Your task to perform on an android device: install app "Chime – Mobile Banking" Image 0: 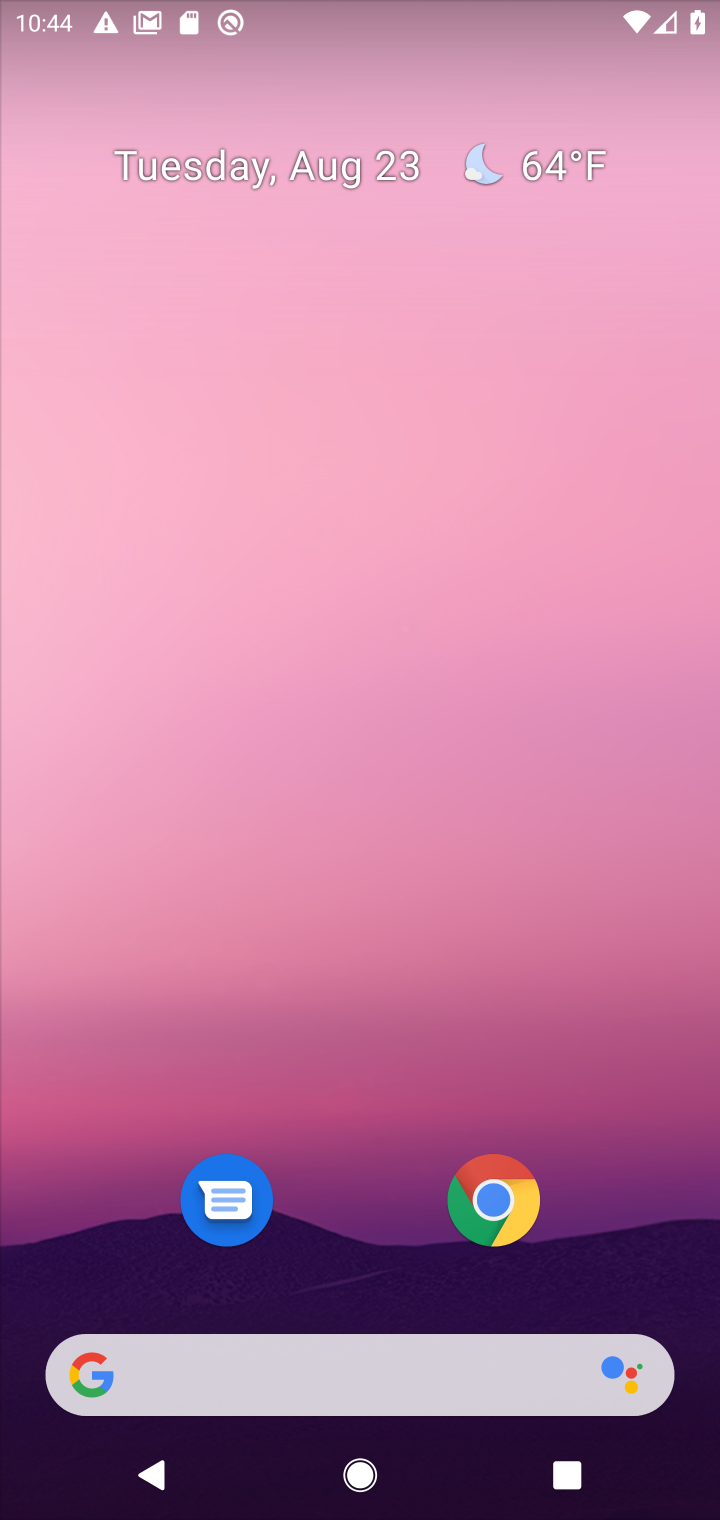
Step 0: drag from (343, 1255) to (133, 19)
Your task to perform on an android device: install app "Chime – Mobile Banking" Image 1: 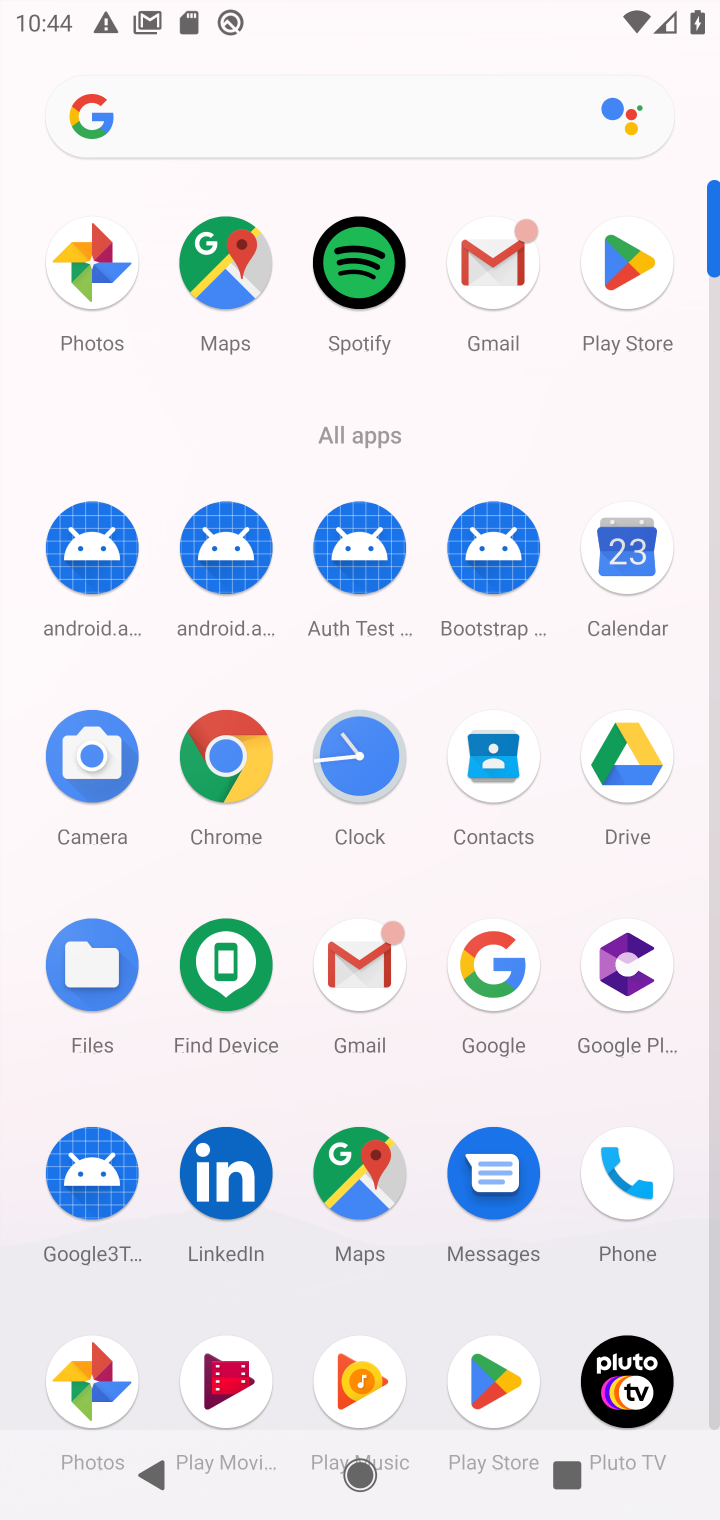
Step 1: click (632, 249)
Your task to perform on an android device: install app "Chime – Mobile Banking" Image 2: 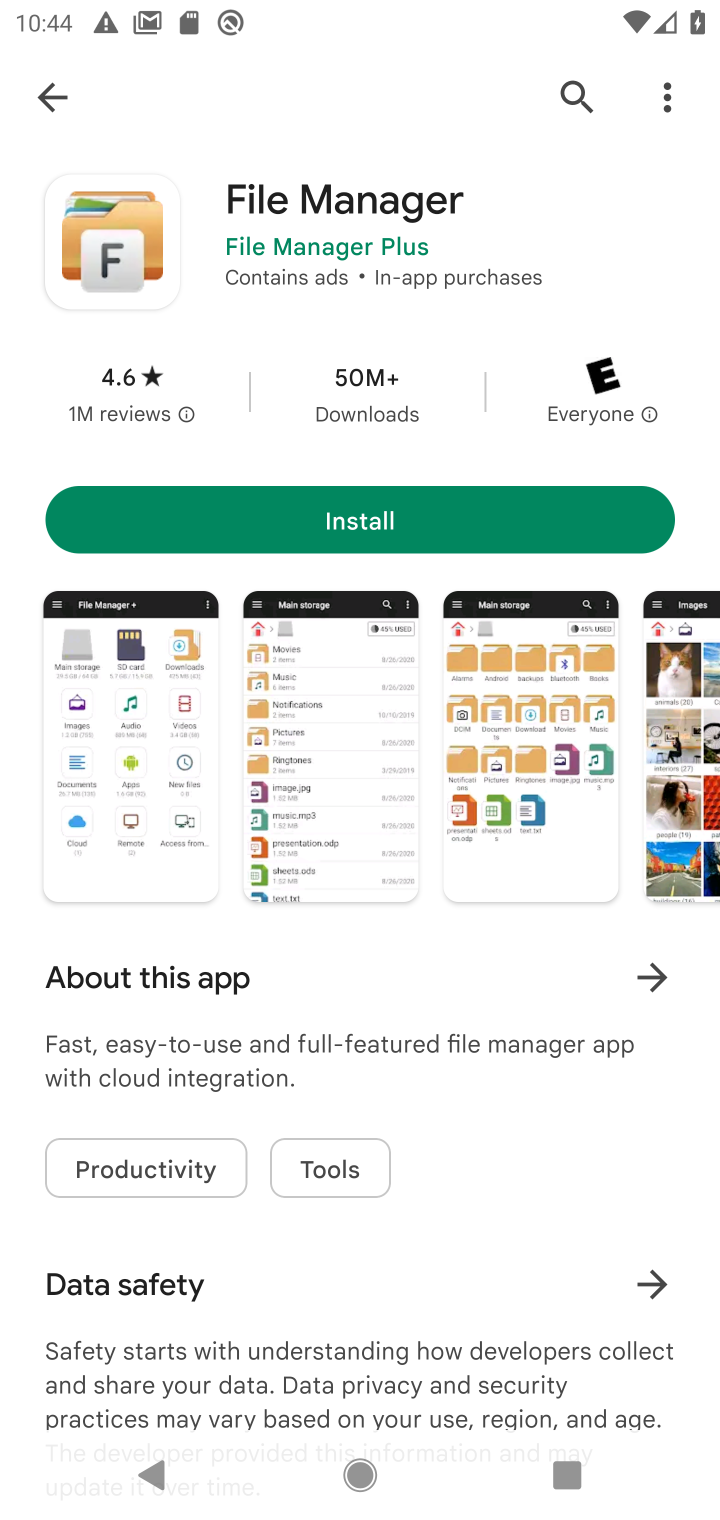
Step 2: click (114, 81)
Your task to perform on an android device: install app "Chime – Mobile Banking" Image 3: 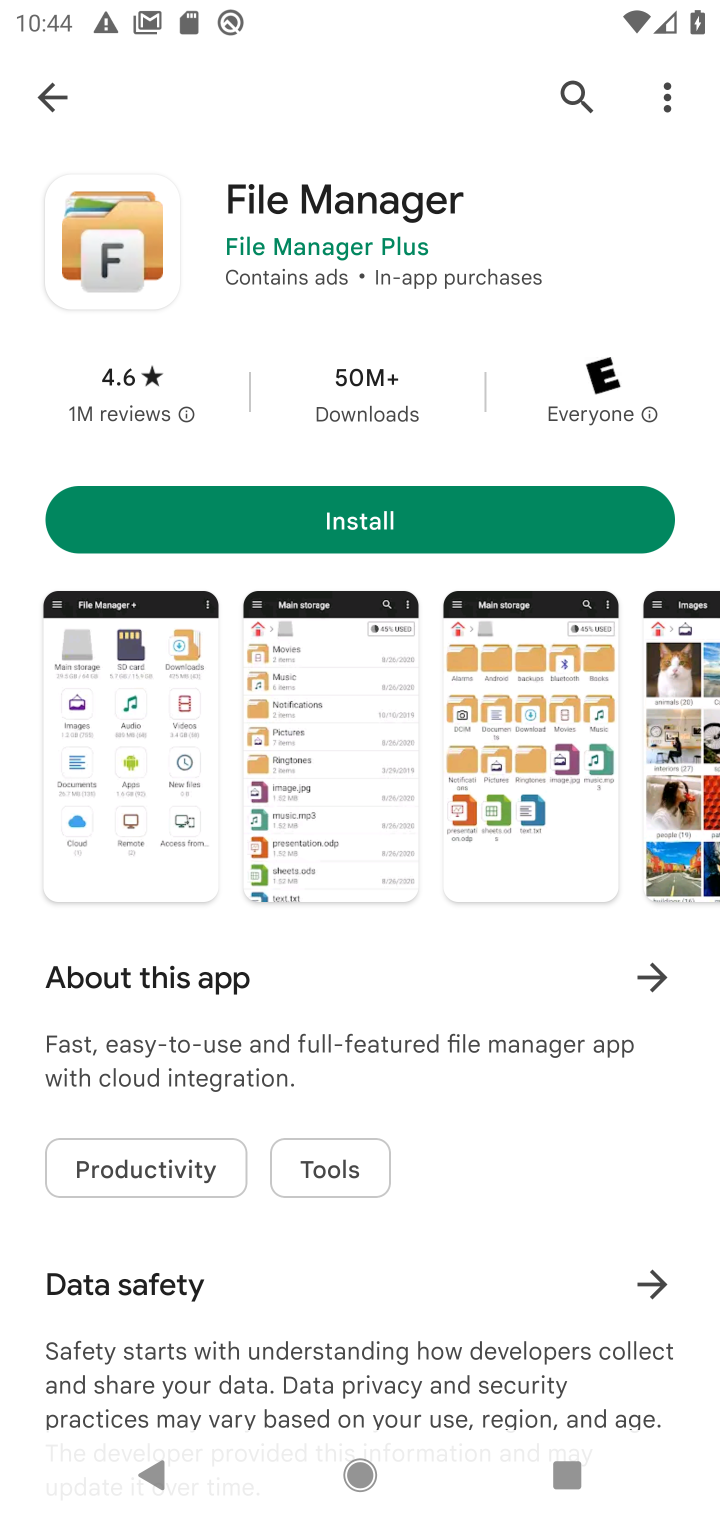
Step 3: click (36, 92)
Your task to perform on an android device: install app "Chime – Mobile Banking" Image 4: 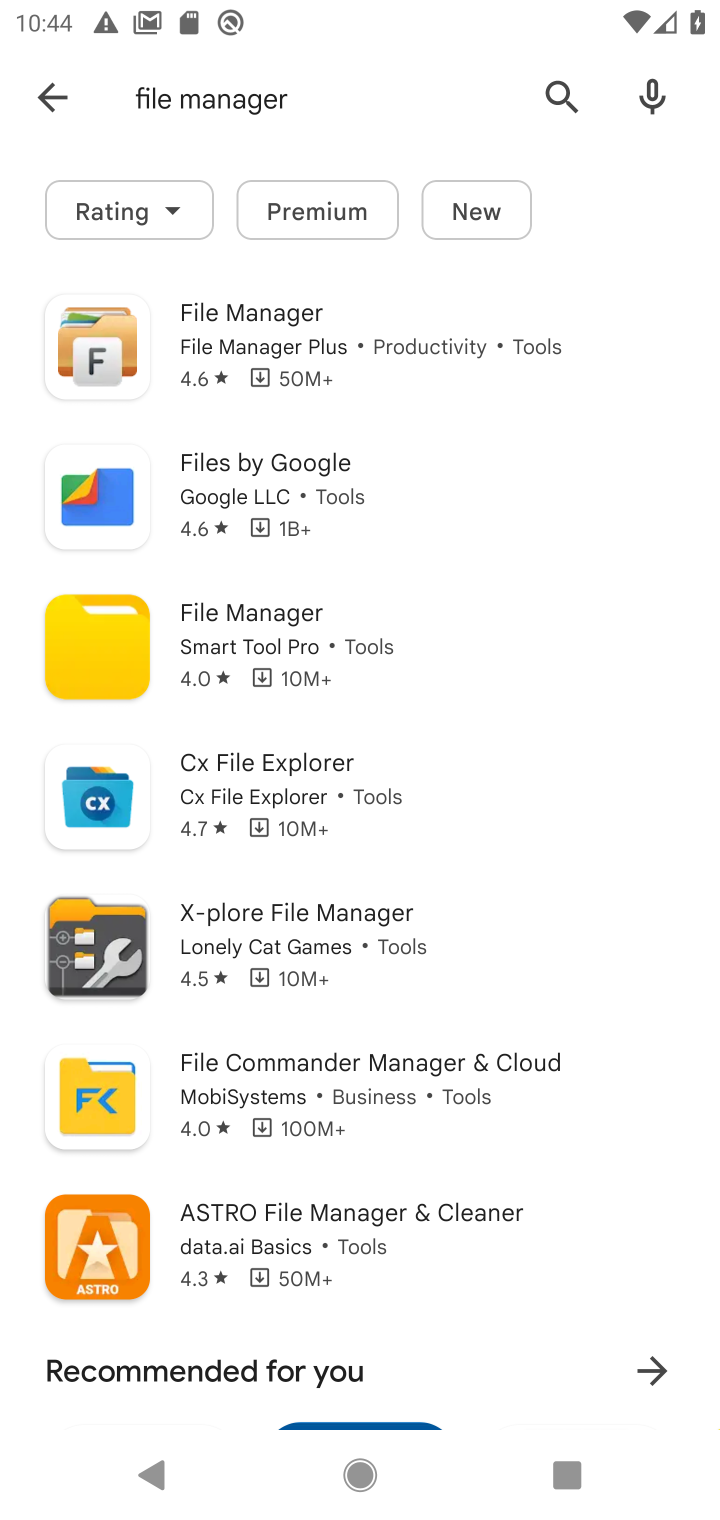
Step 4: click (36, 92)
Your task to perform on an android device: install app "Chime – Mobile Banking" Image 5: 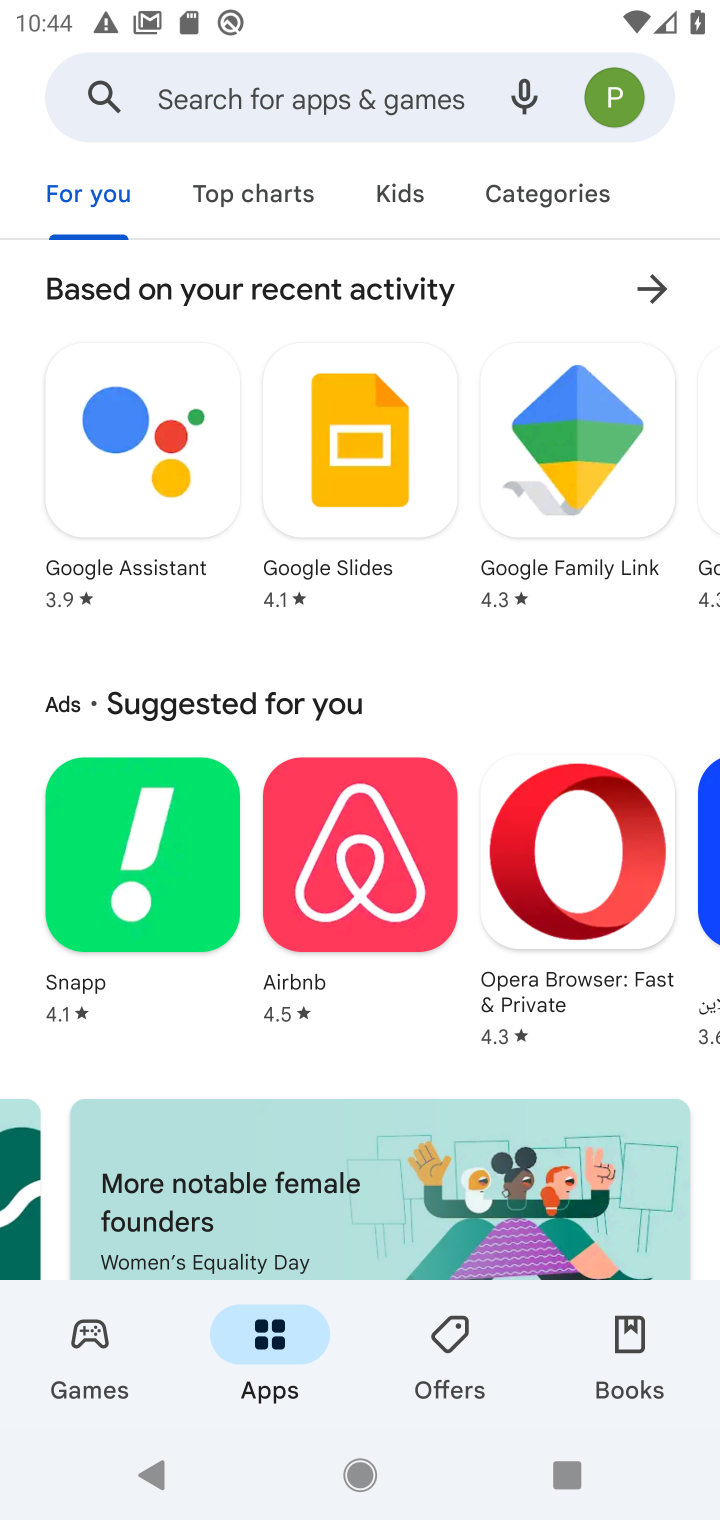
Step 5: click (186, 96)
Your task to perform on an android device: install app "Chime – Mobile Banking" Image 6: 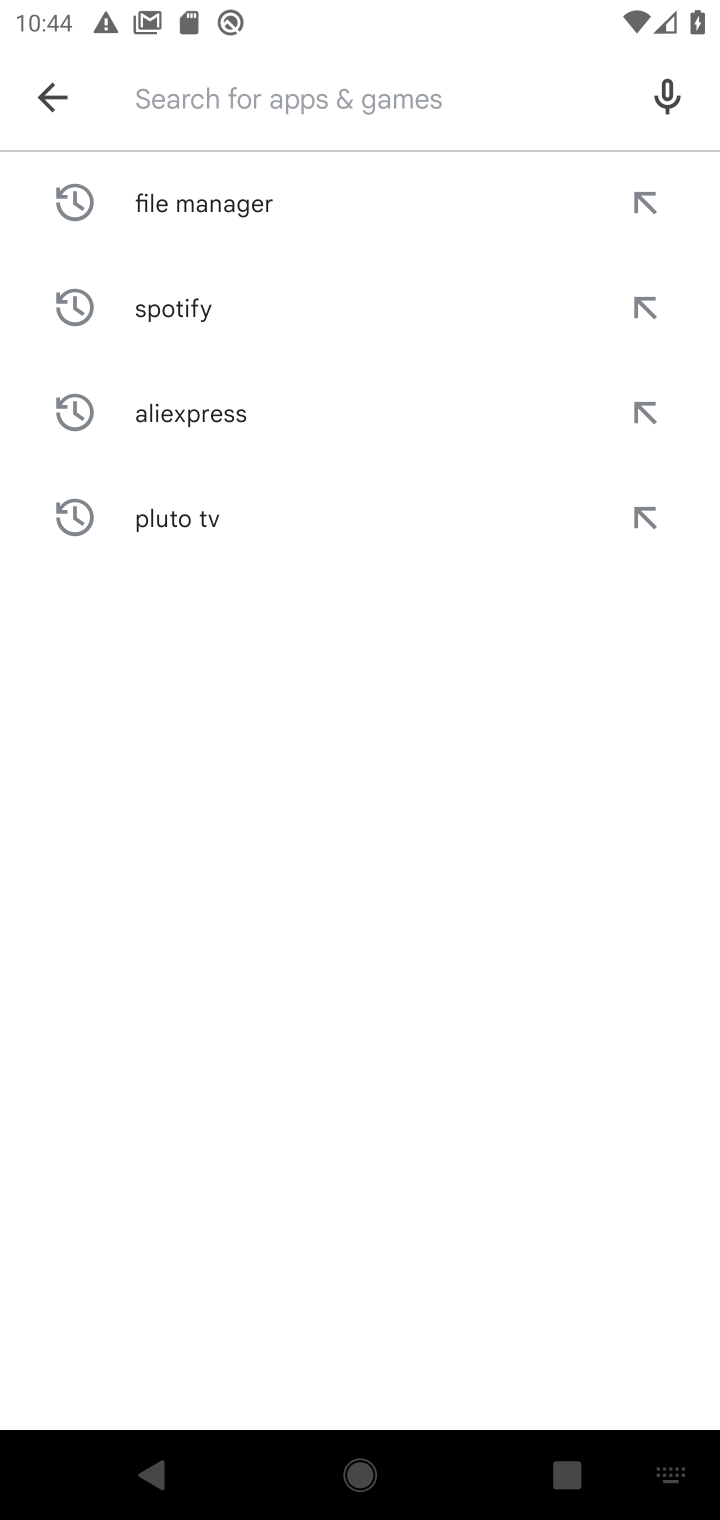
Step 6: drag from (562, 1500) to (317, 1504)
Your task to perform on an android device: install app "Chime – Mobile Banking" Image 7: 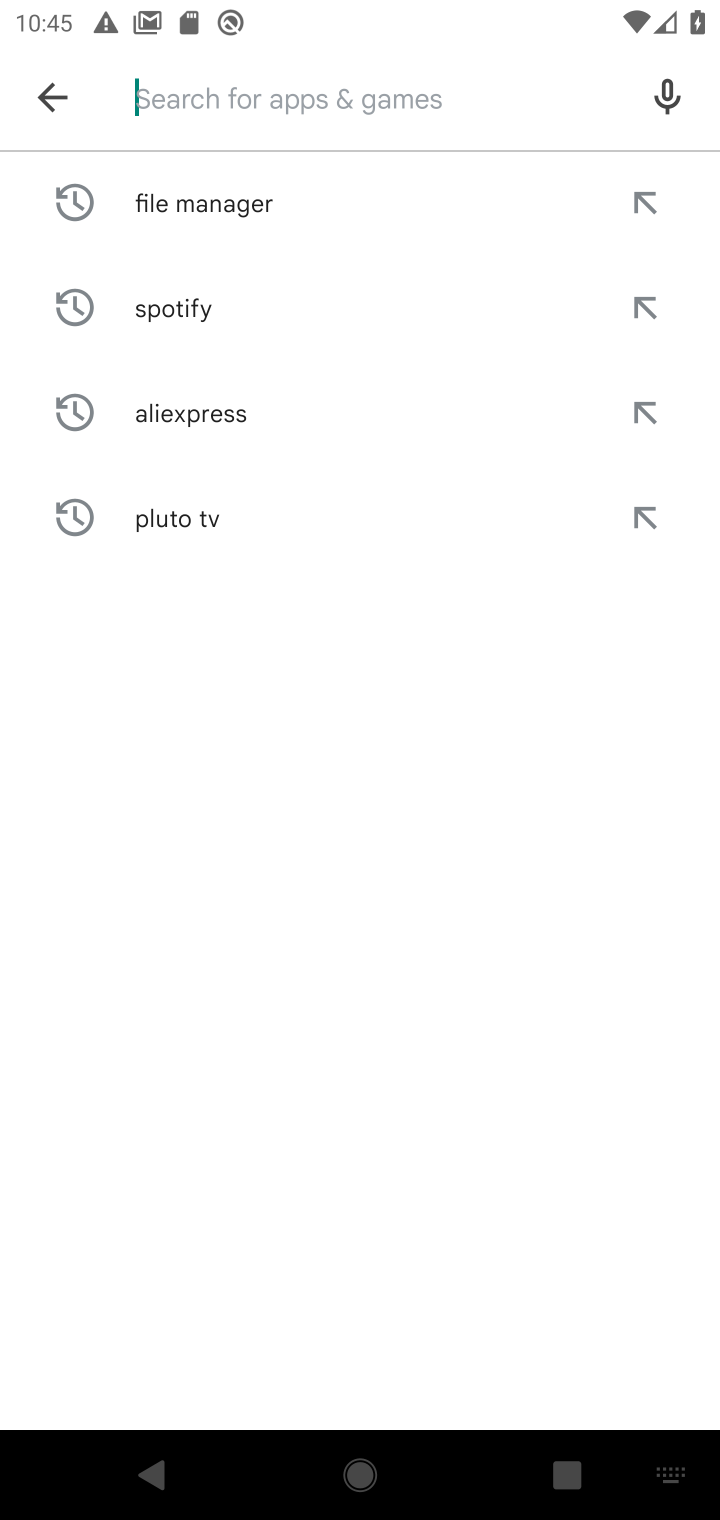
Step 7: type "Chime"
Your task to perform on an android device: install app "Chime – Mobile Banking" Image 8: 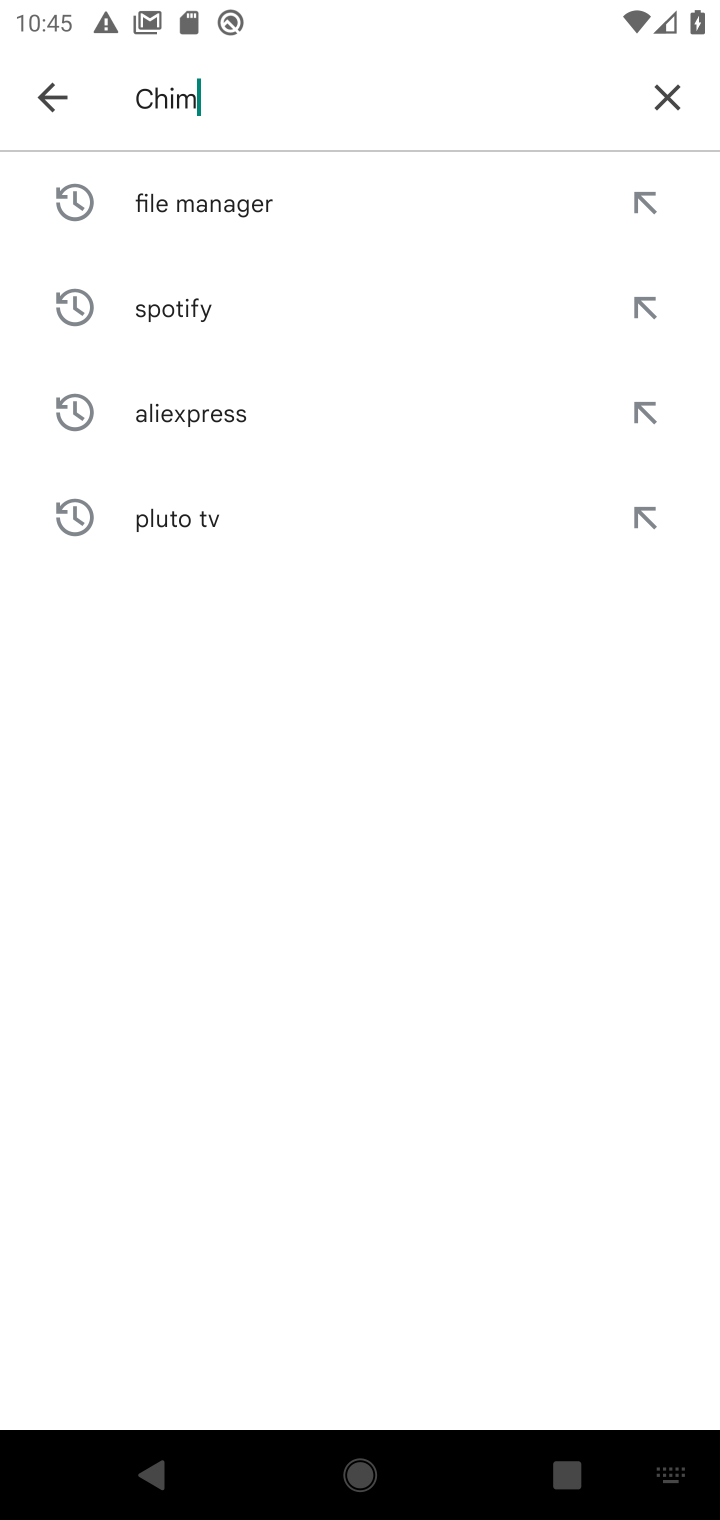
Step 8: drag from (317, 1504) to (616, 717)
Your task to perform on an android device: install app "Chime – Mobile Banking" Image 9: 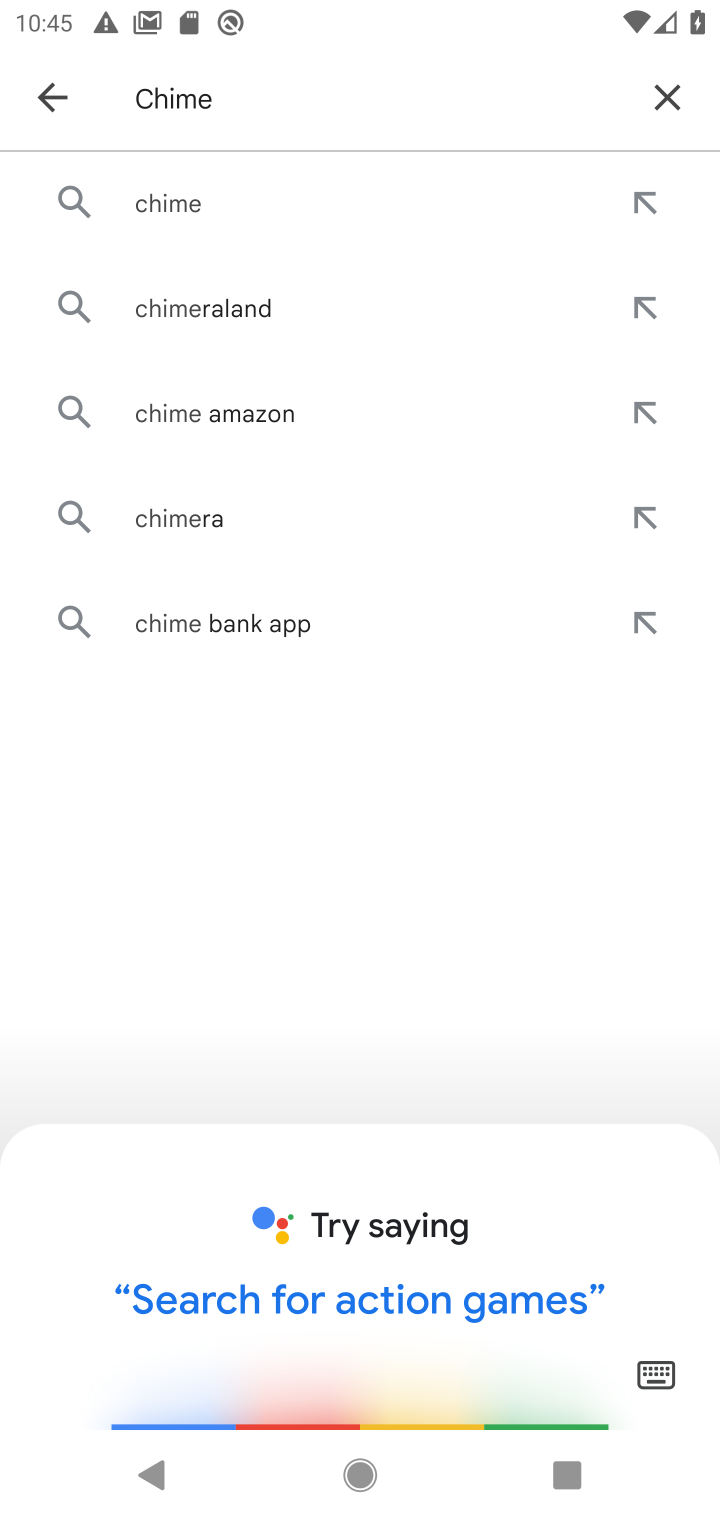
Step 9: click (169, 206)
Your task to perform on an android device: install app "Chime – Mobile Banking" Image 10: 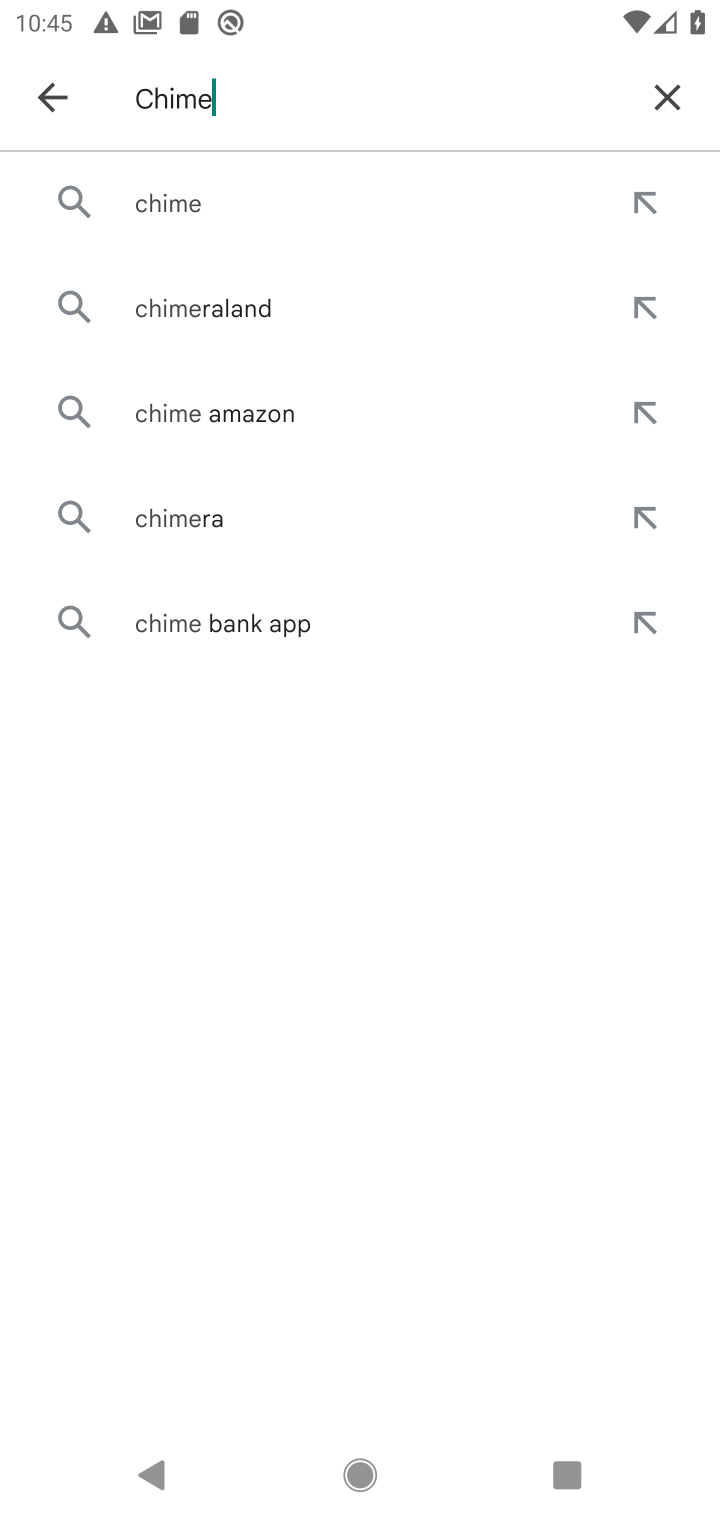
Step 10: click (169, 206)
Your task to perform on an android device: install app "Chime – Mobile Banking" Image 11: 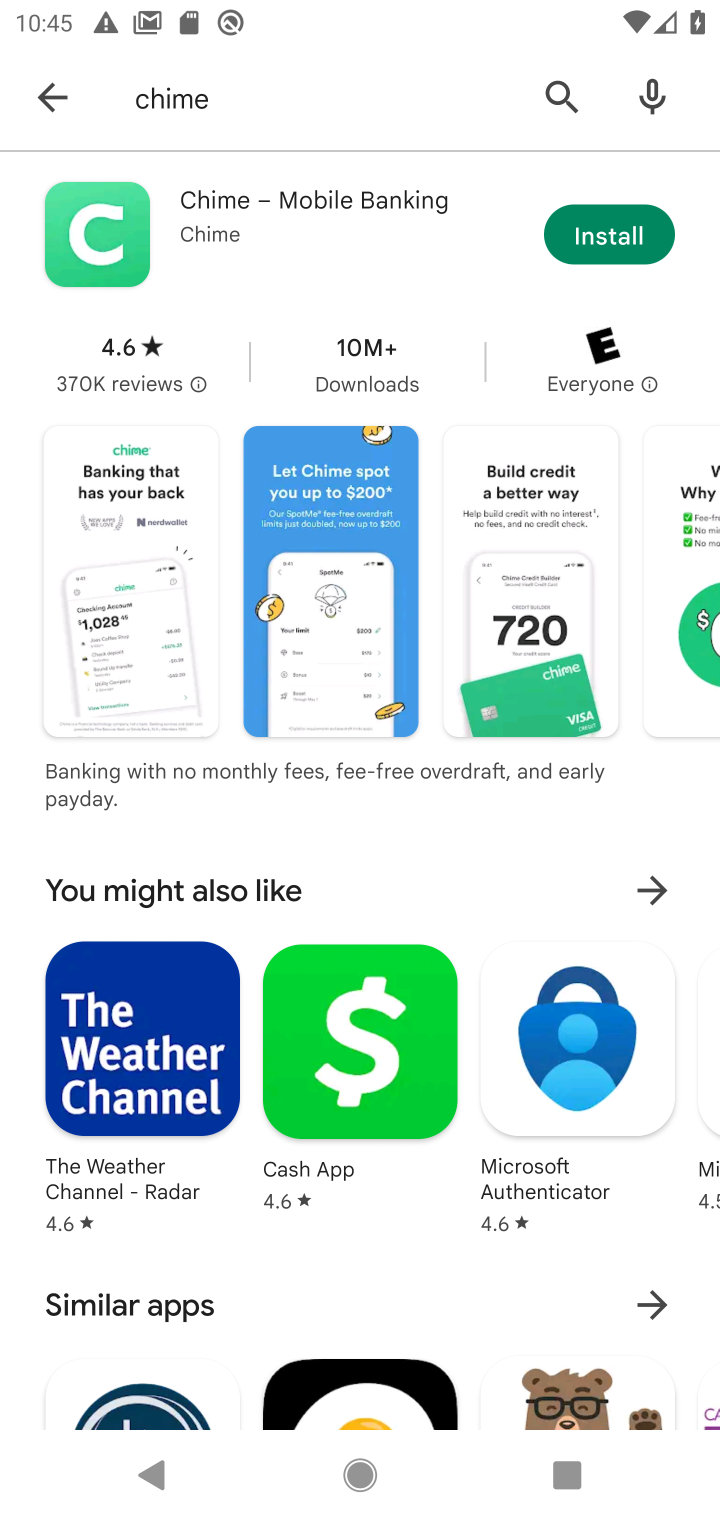
Step 11: click (574, 229)
Your task to perform on an android device: install app "Chime – Mobile Banking" Image 12: 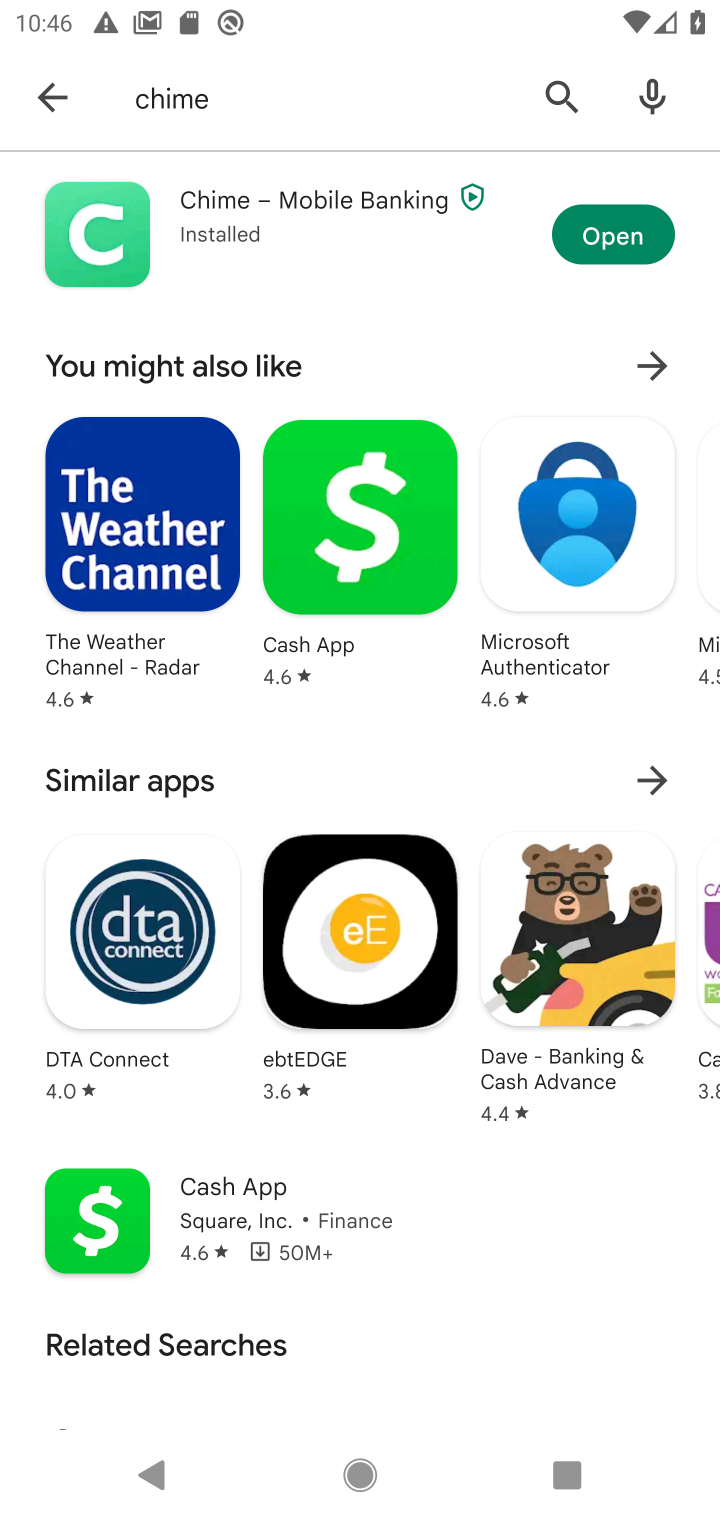
Step 12: click (632, 231)
Your task to perform on an android device: install app "Chime – Mobile Banking" Image 13: 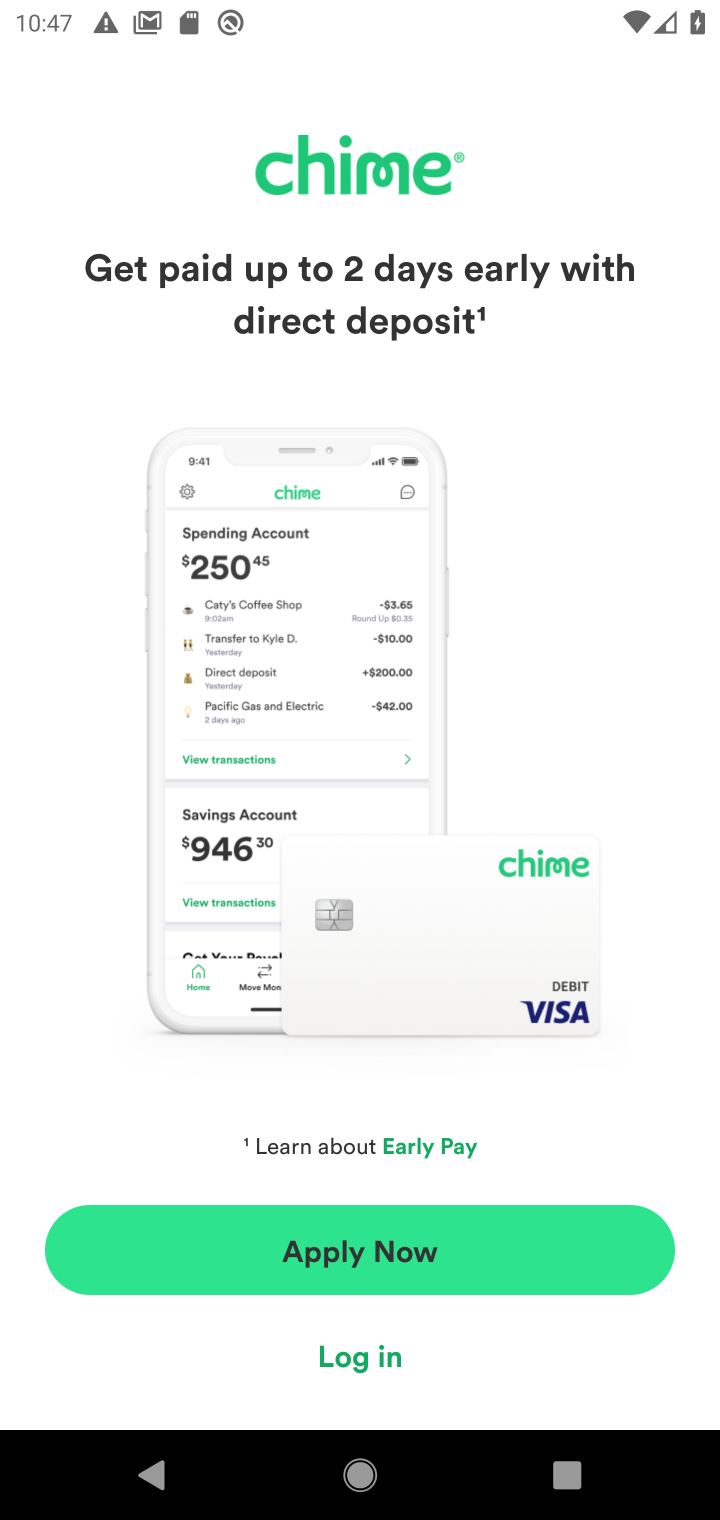
Step 13: task complete